Your task to perform on an android device: Open ESPN.com Image 0: 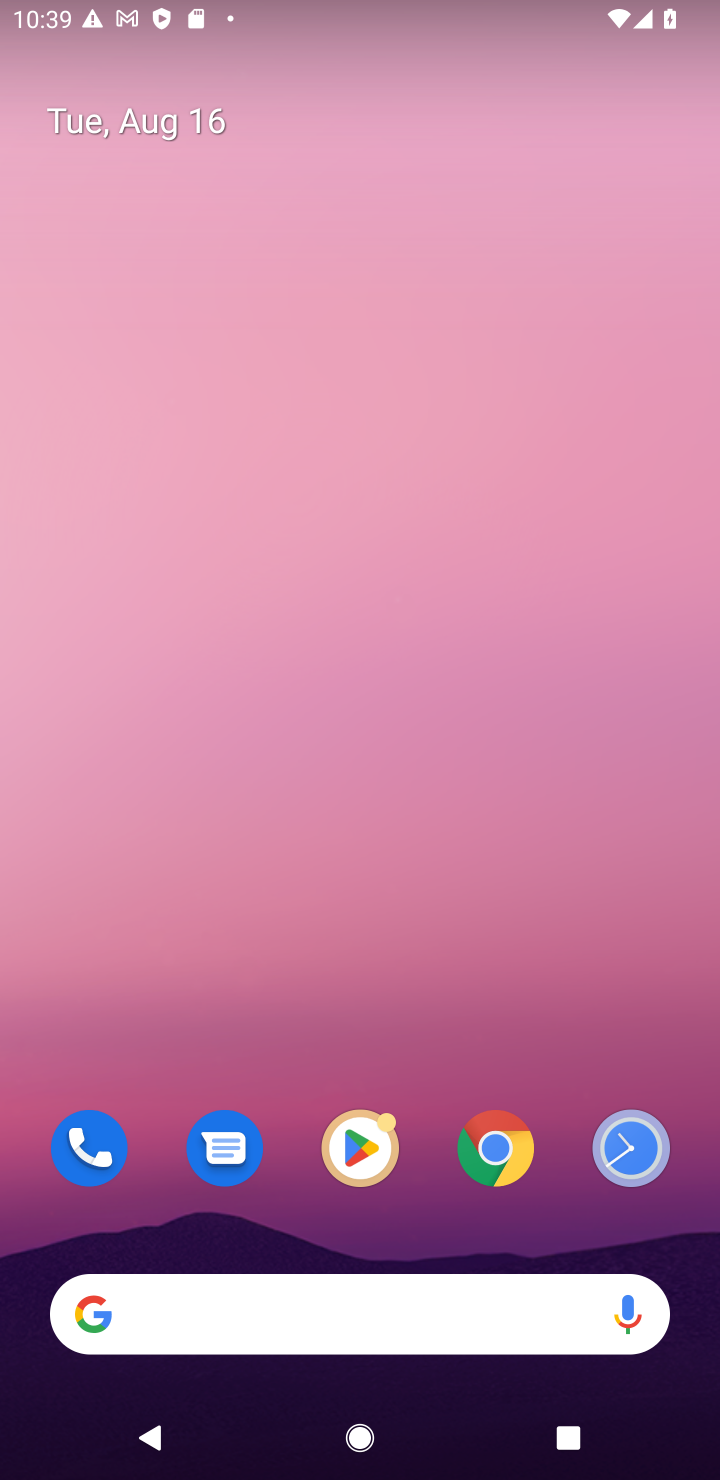
Step 0: press home button
Your task to perform on an android device: Open ESPN.com Image 1: 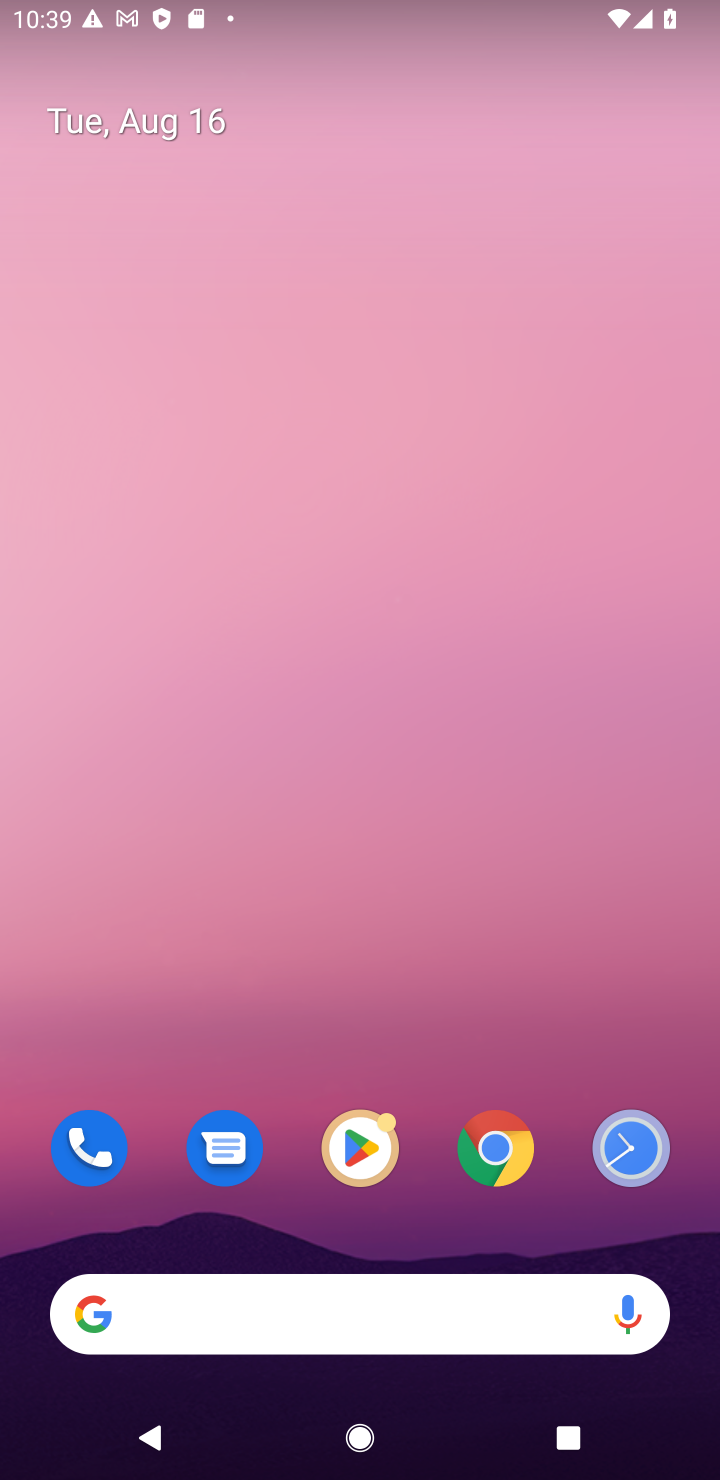
Step 1: drag from (474, 760) to (620, 28)
Your task to perform on an android device: Open ESPN.com Image 2: 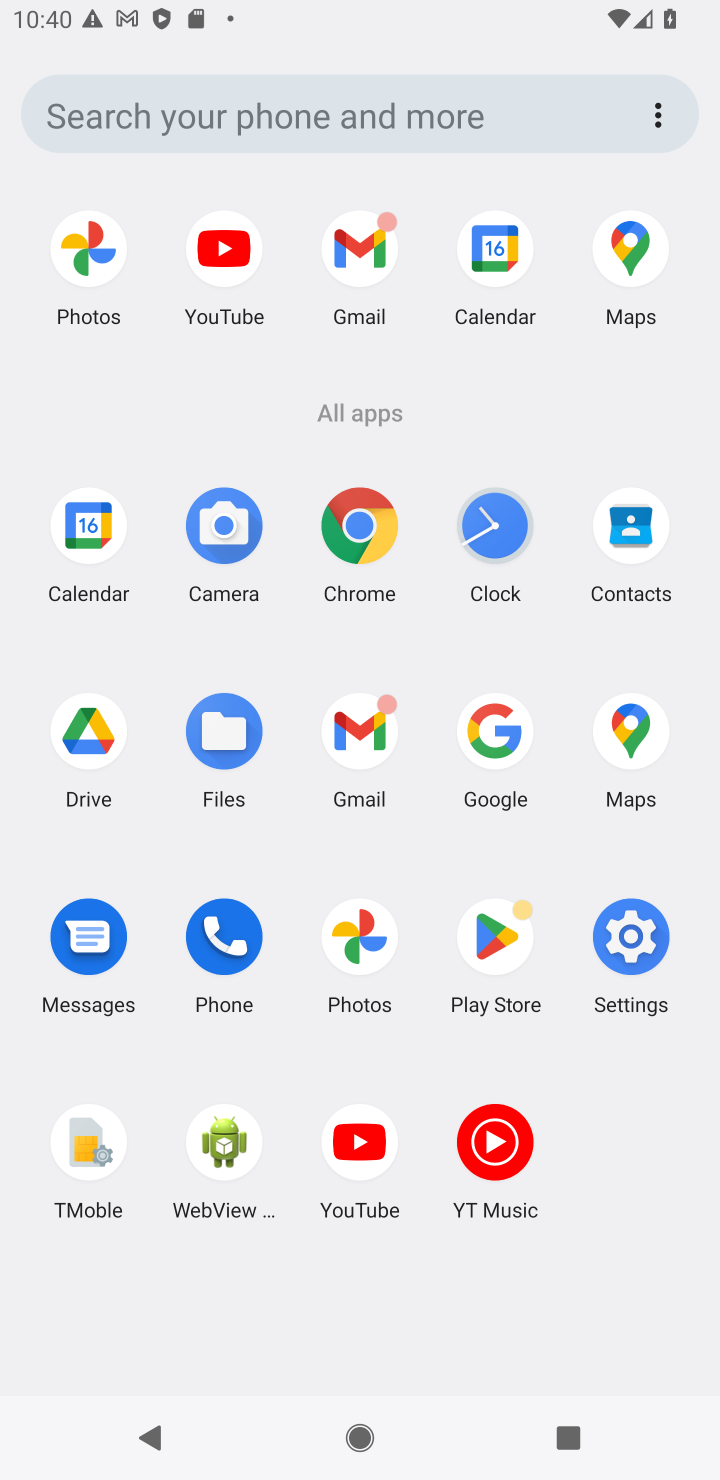
Step 2: click (320, 508)
Your task to perform on an android device: Open ESPN.com Image 3: 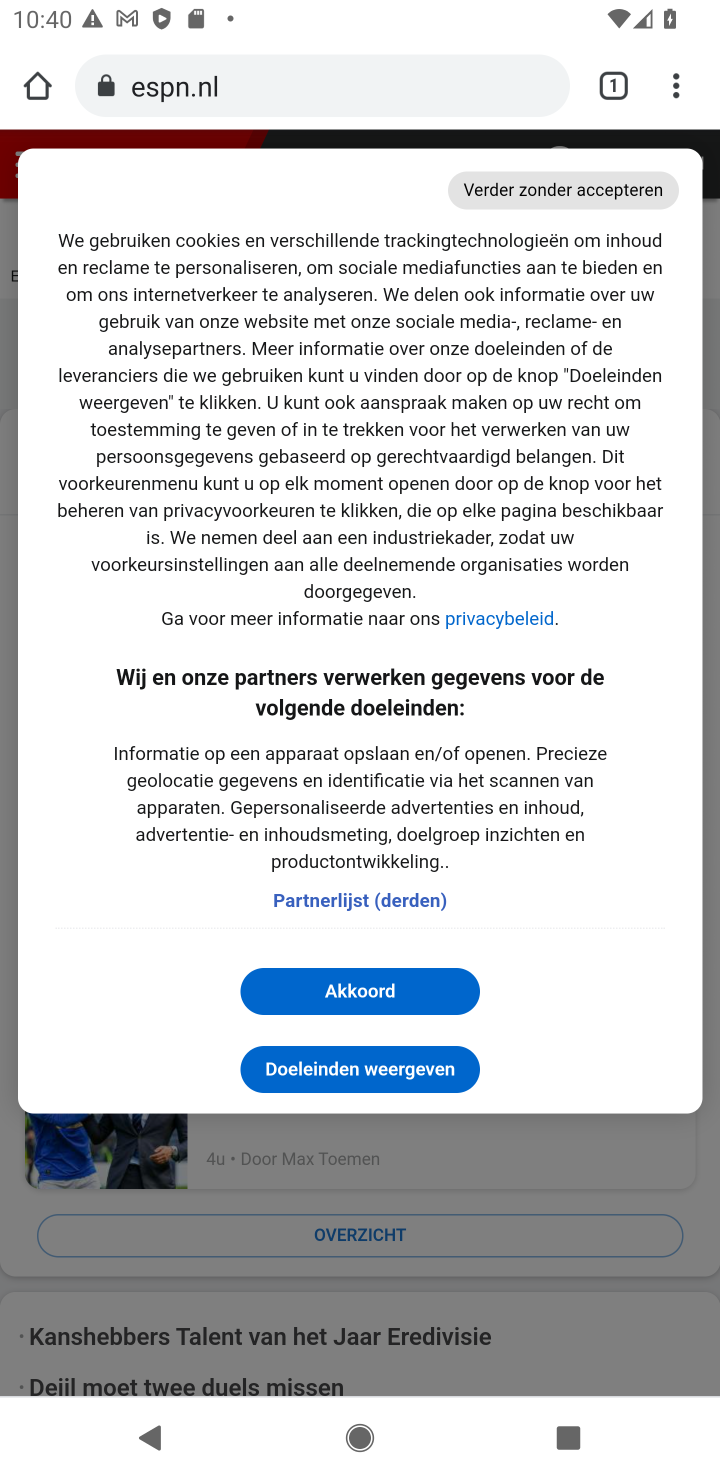
Step 3: task complete